Your task to perform on an android device: Search for Mexican restaurants on Maps Image 0: 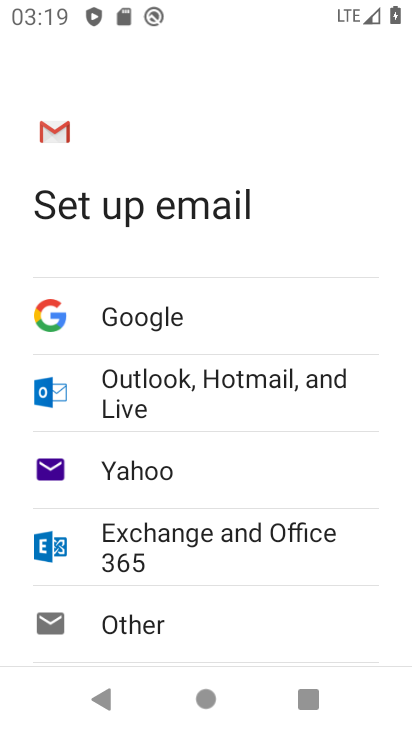
Step 0: press home button
Your task to perform on an android device: Search for Mexican restaurants on Maps Image 1: 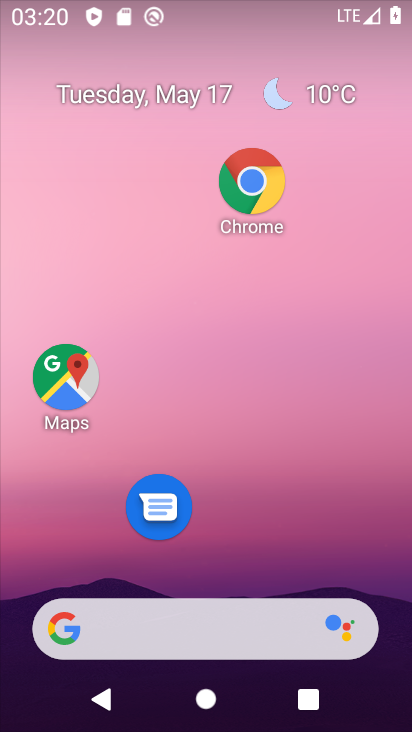
Step 1: click (70, 379)
Your task to perform on an android device: Search for Mexican restaurants on Maps Image 2: 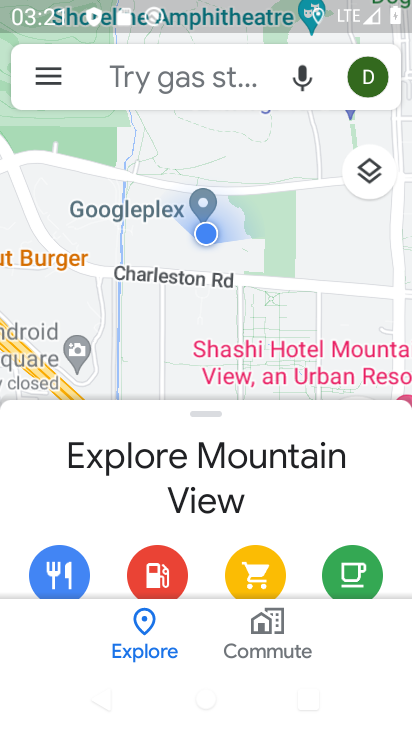
Step 2: click (155, 63)
Your task to perform on an android device: Search for Mexican restaurants on Maps Image 3: 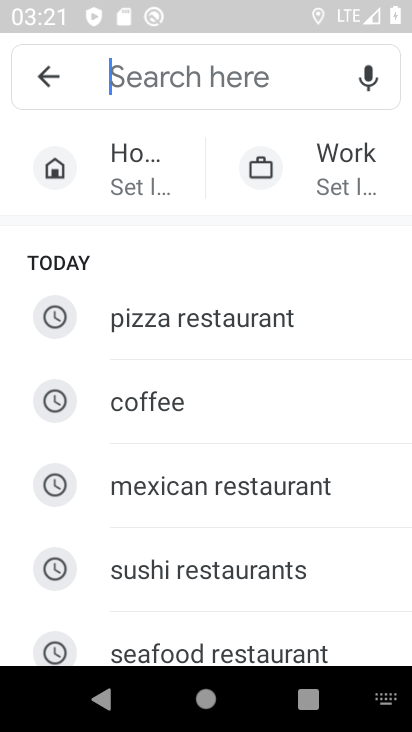
Step 3: click (126, 477)
Your task to perform on an android device: Search for Mexican restaurants on Maps Image 4: 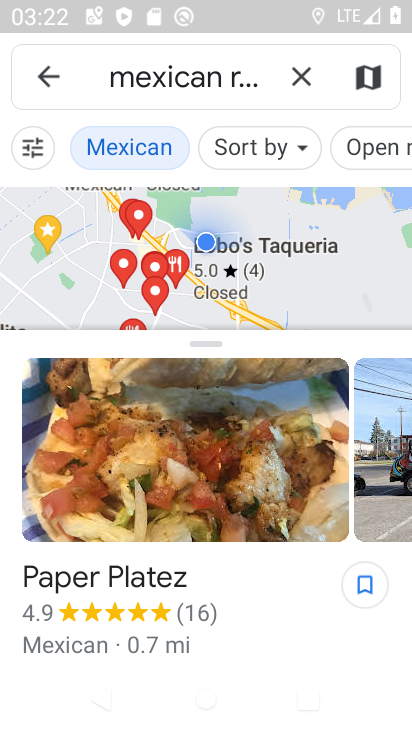
Step 4: task complete